Your task to perform on an android device: turn off sleep mode Image 0: 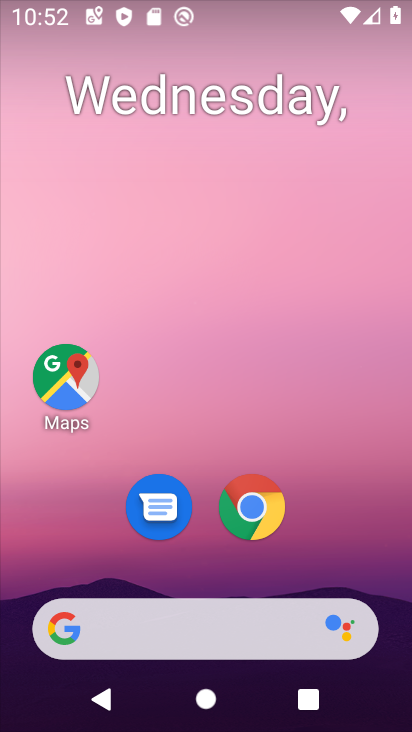
Step 0: drag from (220, 724) to (264, 18)
Your task to perform on an android device: turn off sleep mode Image 1: 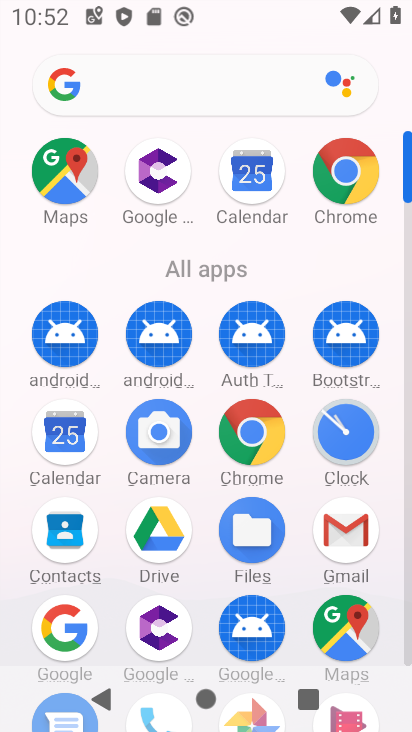
Step 1: drag from (211, 622) to (212, 202)
Your task to perform on an android device: turn off sleep mode Image 2: 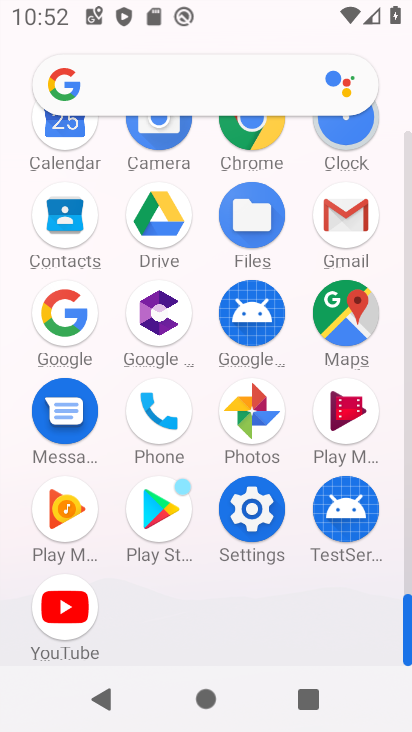
Step 2: click (256, 509)
Your task to perform on an android device: turn off sleep mode Image 3: 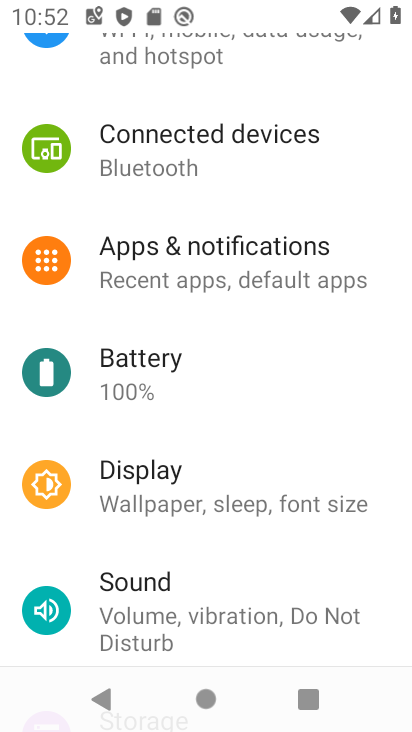
Step 3: drag from (255, 165) to (306, 554)
Your task to perform on an android device: turn off sleep mode Image 4: 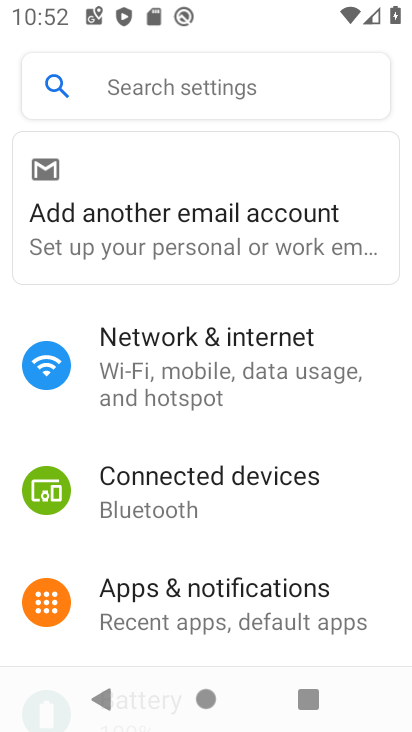
Step 4: drag from (172, 625) to (202, 305)
Your task to perform on an android device: turn off sleep mode Image 5: 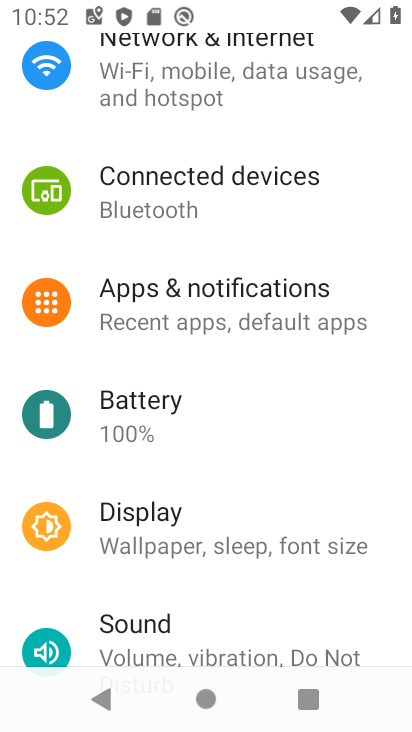
Step 5: click (178, 542)
Your task to perform on an android device: turn off sleep mode Image 6: 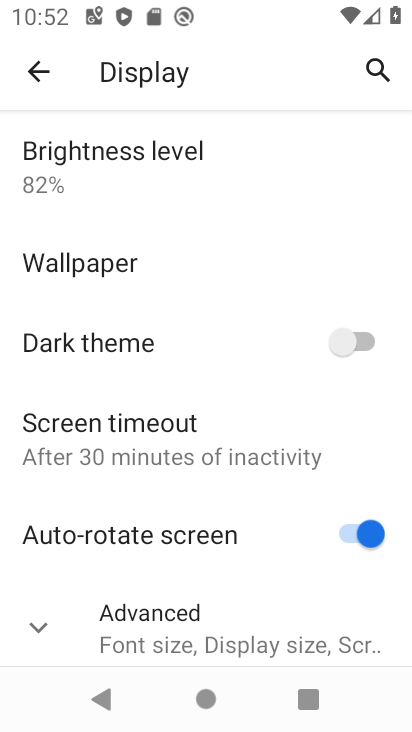
Step 6: click (35, 68)
Your task to perform on an android device: turn off sleep mode Image 7: 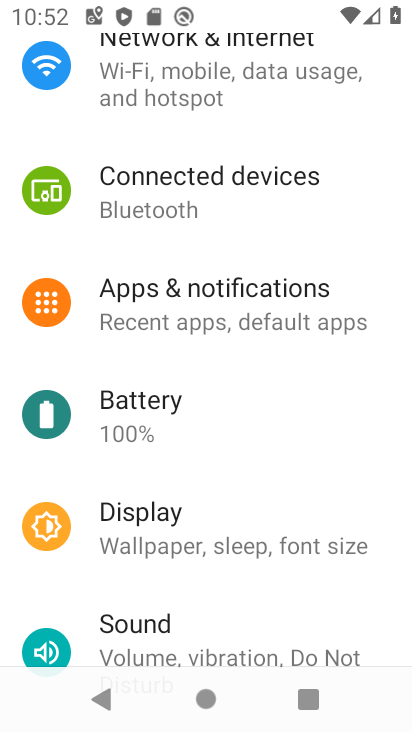
Step 7: task complete